Your task to perform on an android device: open the mobile data screen to see how much data has been used Image 0: 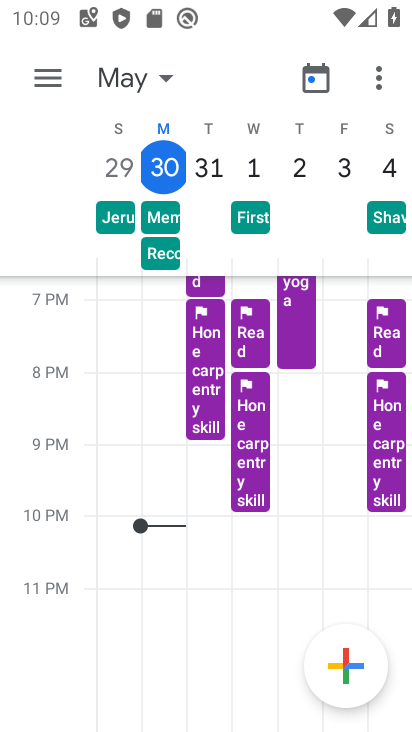
Step 0: press home button
Your task to perform on an android device: open the mobile data screen to see how much data has been used Image 1: 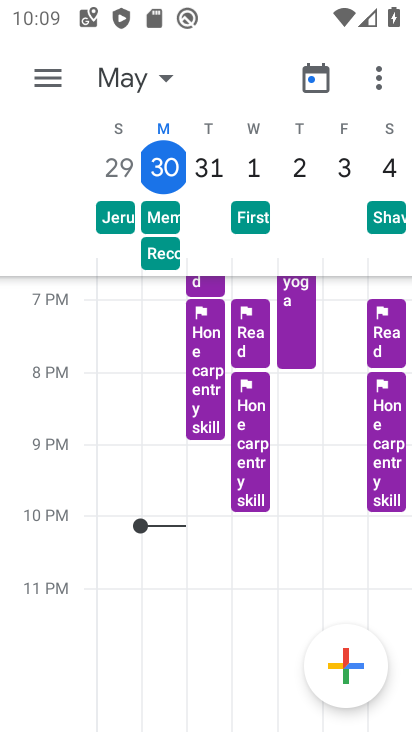
Step 1: press home button
Your task to perform on an android device: open the mobile data screen to see how much data has been used Image 2: 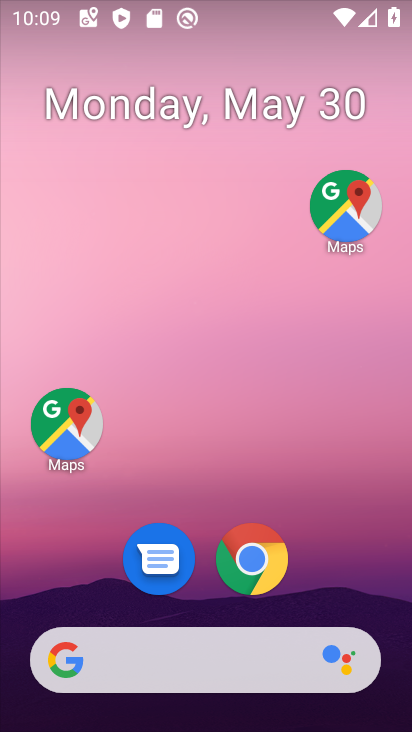
Step 2: drag from (332, 588) to (203, 160)
Your task to perform on an android device: open the mobile data screen to see how much data has been used Image 3: 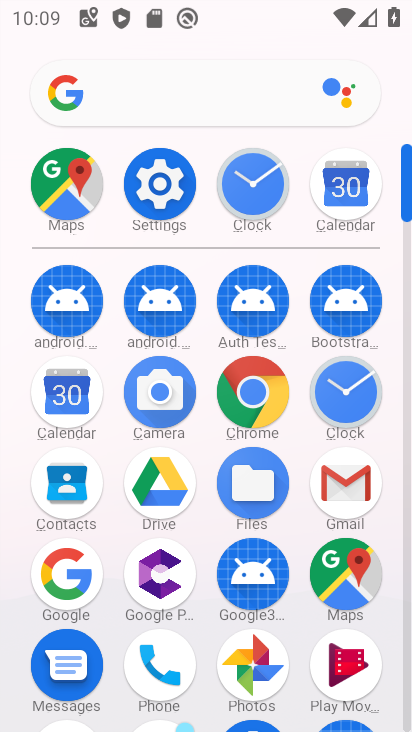
Step 3: click (159, 186)
Your task to perform on an android device: open the mobile data screen to see how much data has been used Image 4: 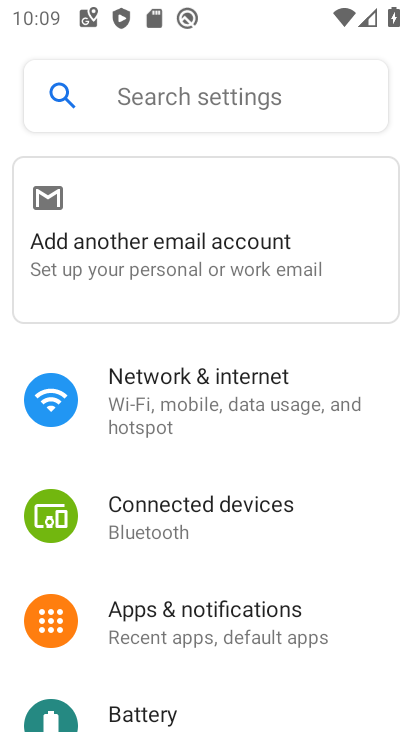
Step 4: click (228, 404)
Your task to perform on an android device: open the mobile data screen to see how much data has been used Image 5: 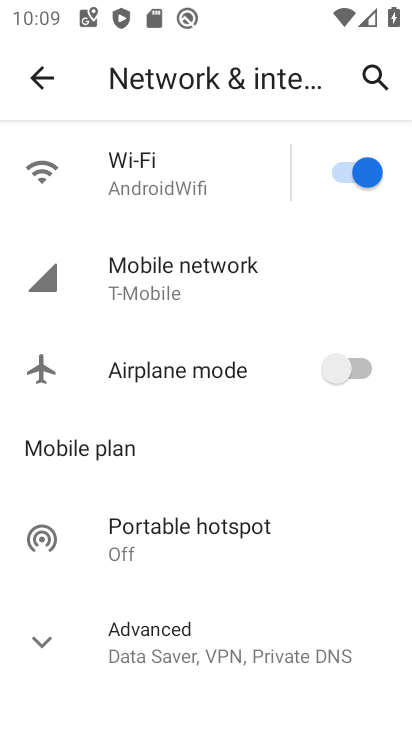
Step 5: click (175, 272)
Your task to perform on an android device: open the mobile data screen to see how much data has been used Image 6: 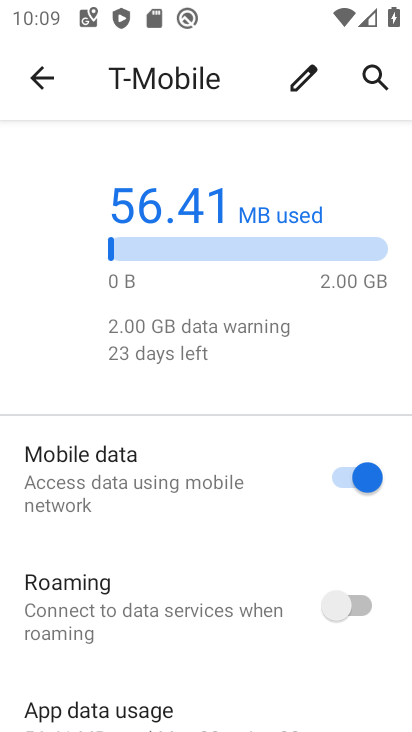
Step 6: task complete